Your task to perform on an android device: What's the weather going to be this weekend? Image 0: 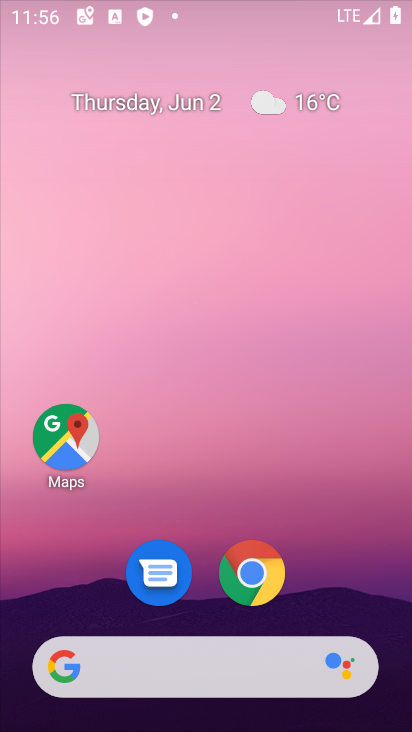
Step 0: drag from (344, 584) to (222, 2)
Your task to perform on an android device: What's the weather going to be this weekend? Image 1: 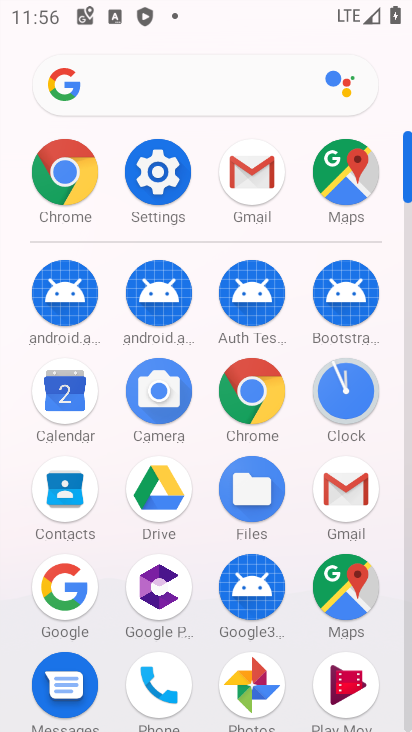
Step 1: drag from (391, 600) to (379, 217)
Your task to perform on an android device: What's the weather going to be this weekend? Image 2: 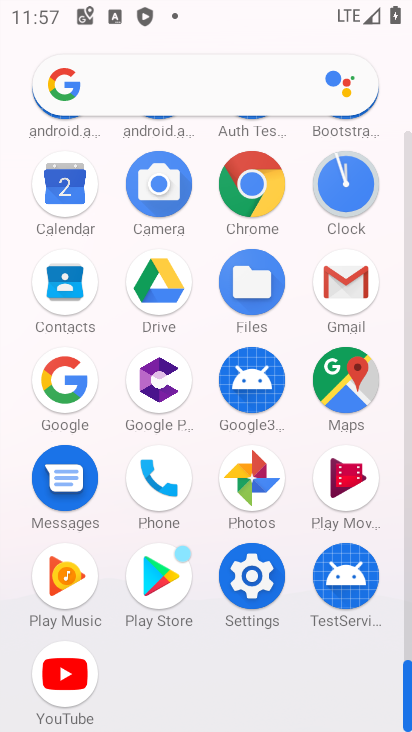
Step 2: drag from (383, 293) to (374, 719)
Your task to perform on an android device: What's the weather going to be this weekend? Image 3: 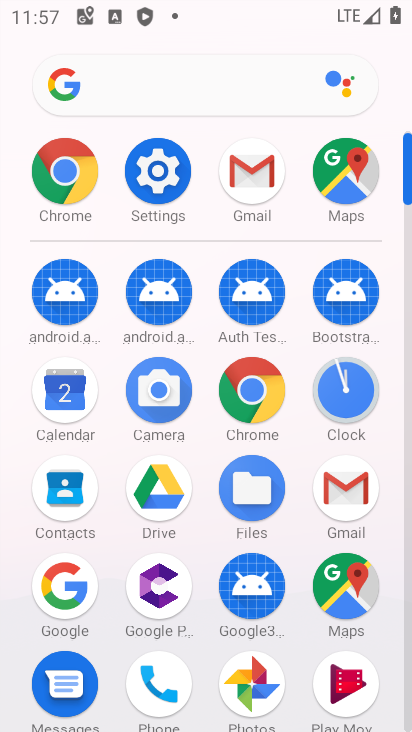
Step 3: drag from (384, 325) to (393, 660)
Your task to perform on an android device: What's the weather going to be this weekend? Image 4: 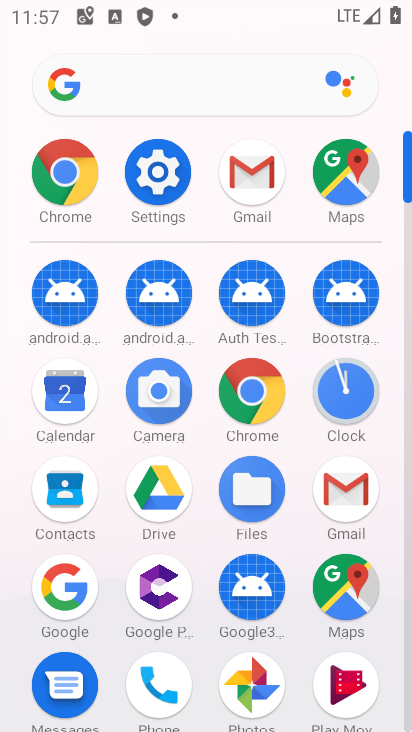
Step 4: press home button
Your task to perform on an android device: What's the weather going to be this weekend? Image 5: 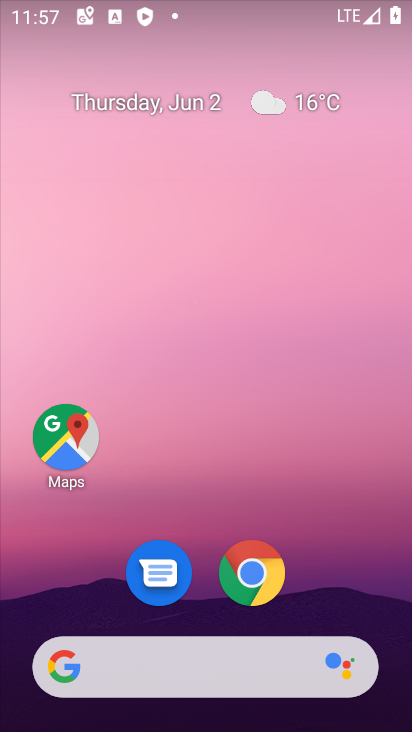
Step 5: click (305, 102)
Your task to perform on an android device: What's the weather going to be this weekend? Image 6: 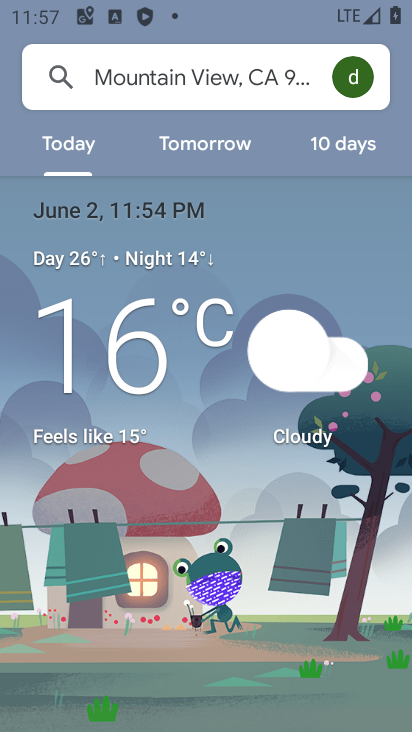
Step 6: click (355, 157)
Your task to perform on an android device: What's the weather going to be this weekend? Image 7: 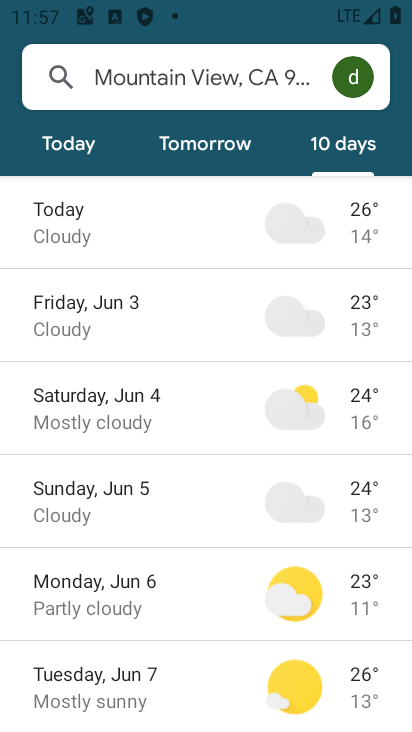
Step 7: task complete